Your task to perform on an android device: empty trash in google photos Image 0: 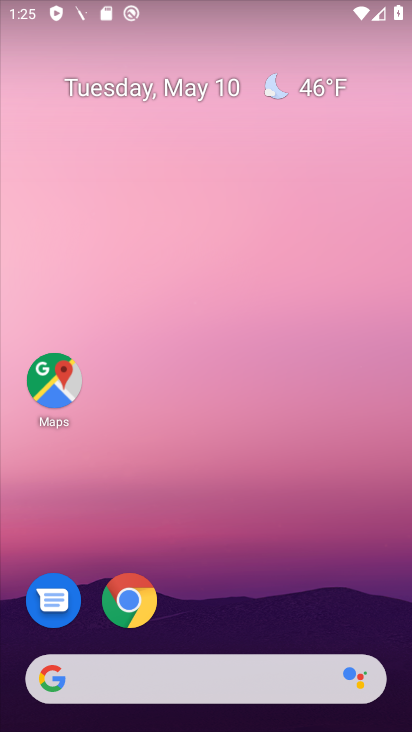
Step 0: drag from (197, 648) to (118, 39)
Your task to perform on an android device: empty trash in google photos Image 1: 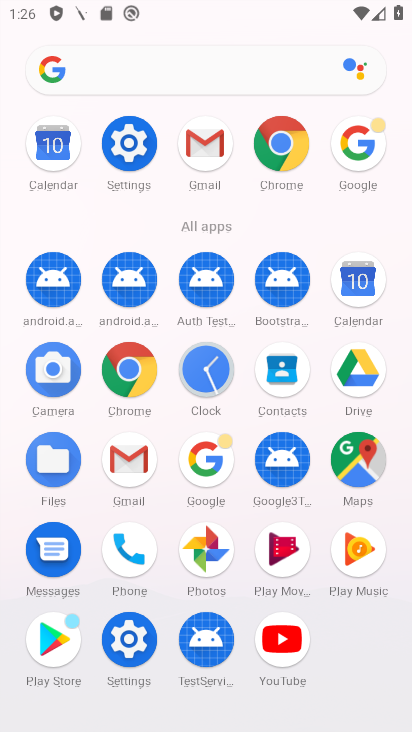
Step 1: click (199, 561)
Your task to perform on an android device: empty trash in google photos Image 2: 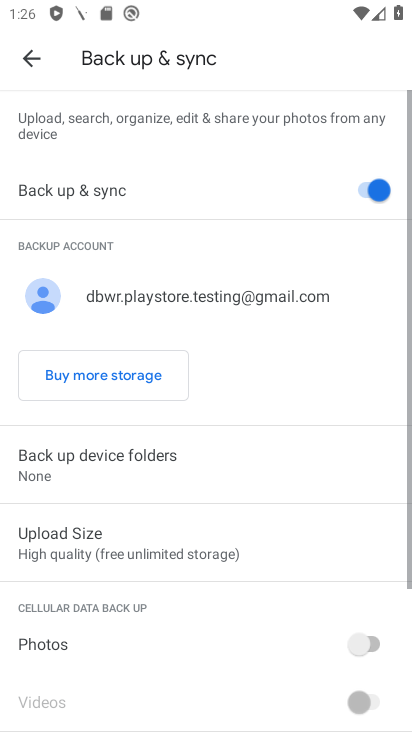
Step 2: click (33, 55)
Your task to perform on an android device: empty trash in google photos Image 3: 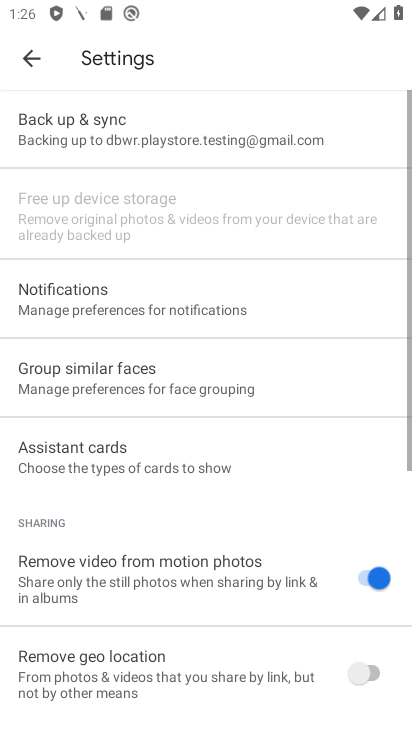
Step 3: click (32, 54)
Your task to perform on an android device: empty trash in google photos Image 4: 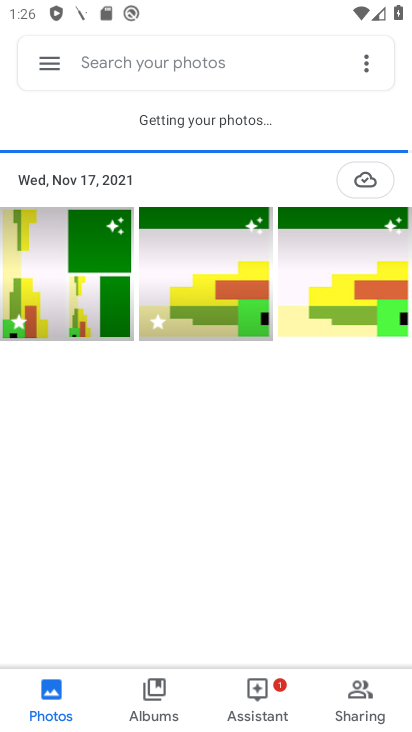
Step 4: click (32, 54)
Your task to perform on an android device: empty trash in google photos Image 5: 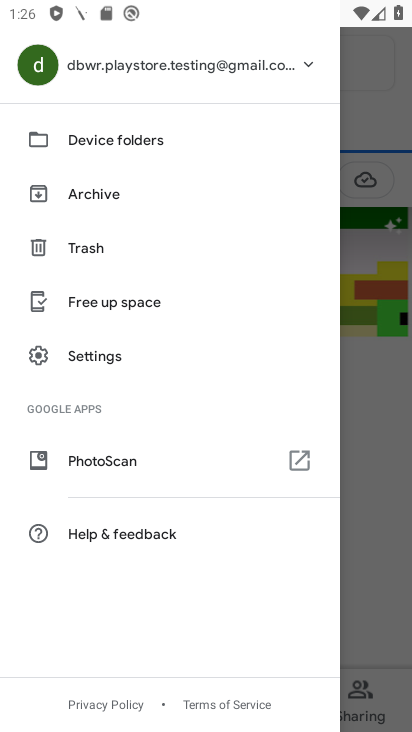
Step 5: click (89, 240)
Your task to perform on an android device: empty trash in google photos Image 6: 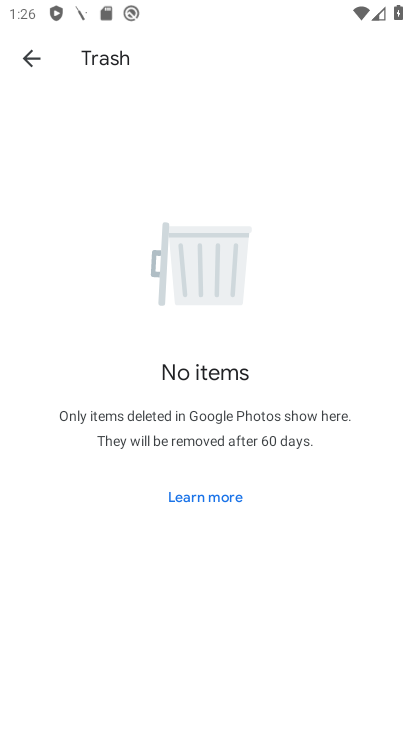
Step 6: task complete